Your task to perform on an android device: What's on my calendar today? Image 0: 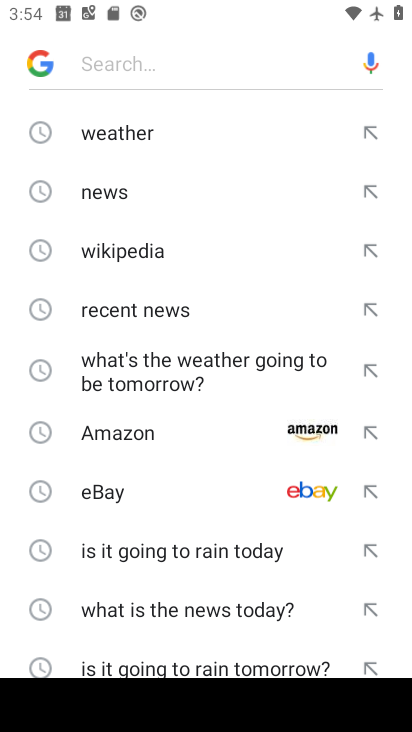
Step 0: press home button
Your task to perform on an android device: What's on my calendar today? Image 1: 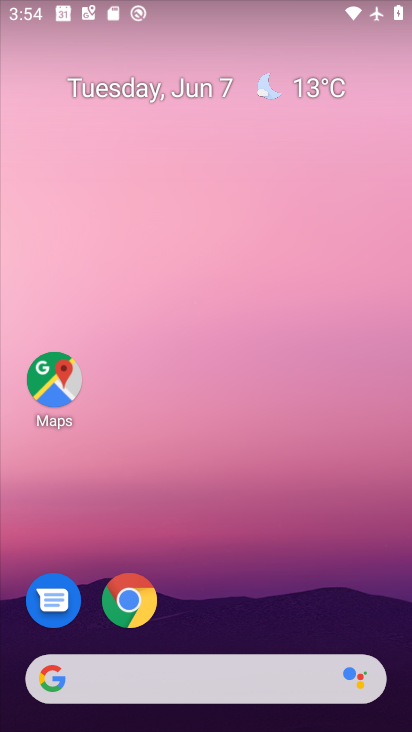
Step 1: drag from (253, 562) to (231, 110)
Your task to perform on an android device: What's on my calendar today? Image 2: 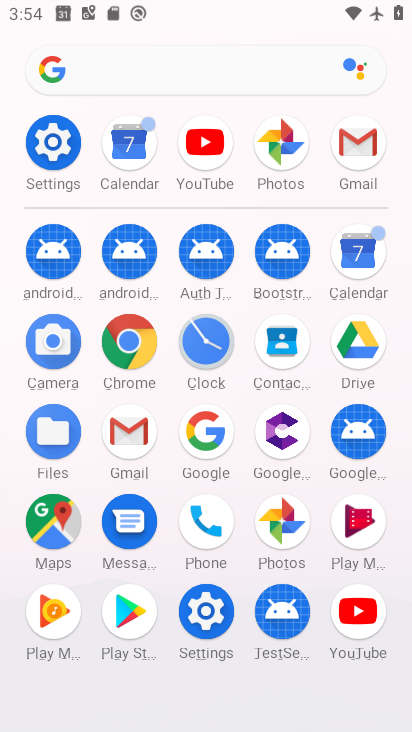
Step 2: click (350, 250)
Your task to perform on an android device: What's on my calendar today? Image 3: 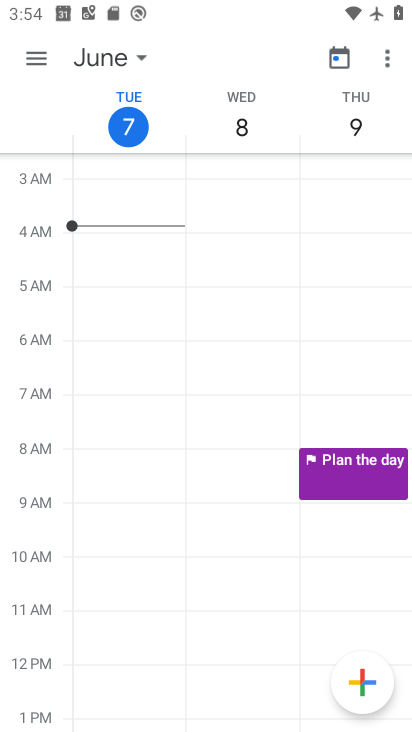
Step 3: click (133, 140)
Your task to perform on an android device: What's on my calendar today? Image 4: 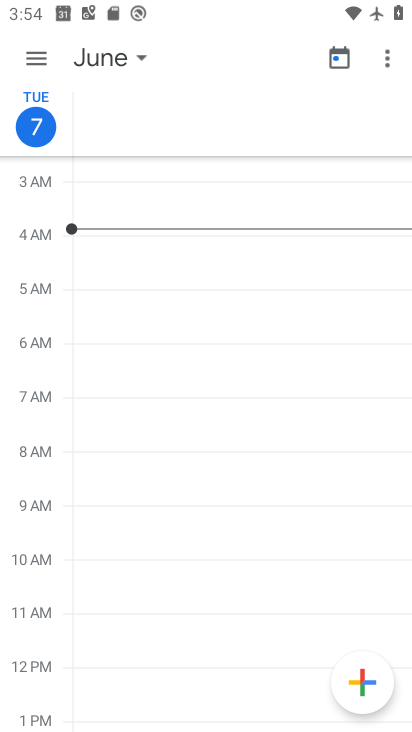
Step 4: task complete